Your task to perform on an android device: open app "PUBG MOBILE" (install if not already installed) and enter user name: "phenomenologically@gmail.com" and password: "artillery" Image 0: 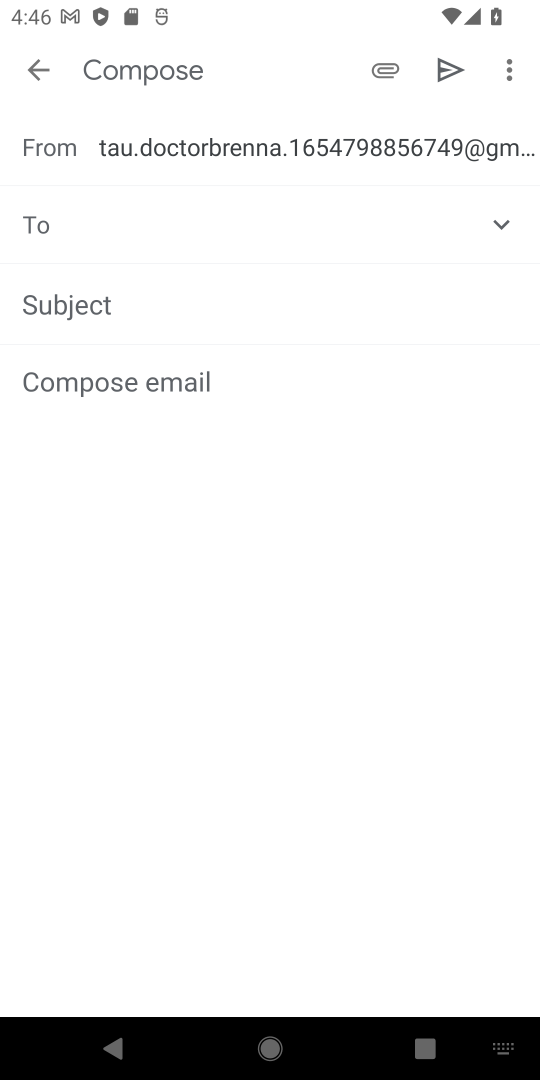
Step 0: press home button
Your task to perform on an android device: open app "PUBG MOBILE" (install if not already installed) and enter user name: "phenomenologically@gmail.com" and password: "artillery" Image 1: 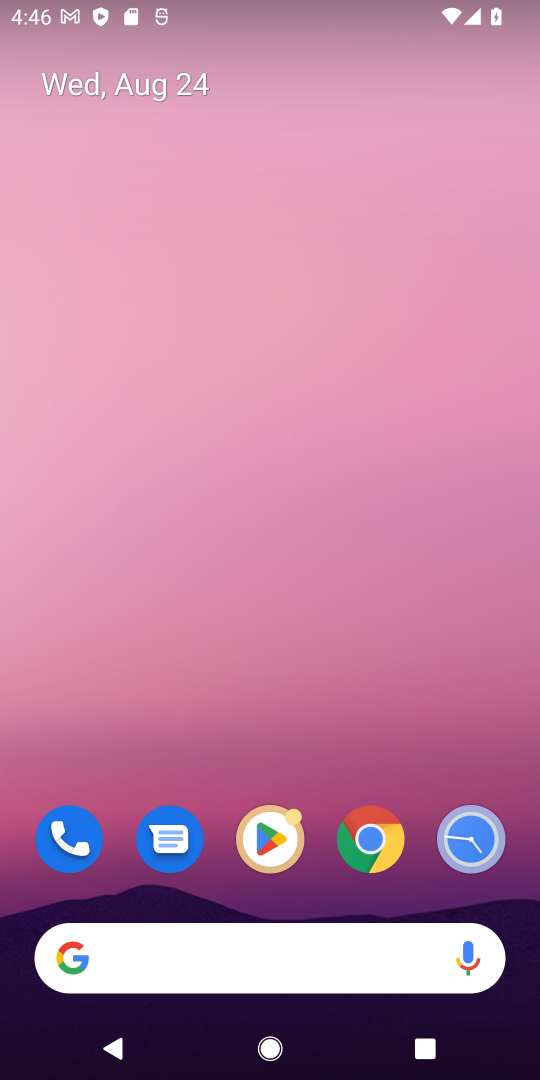
Step 1: click (281, 821)
Your task to perform on an android device: open app "PUBG MOBILE" (install if not already installed) and enter user name: "phenomenologically@gmail.com" and password: "artillery" Image 2: 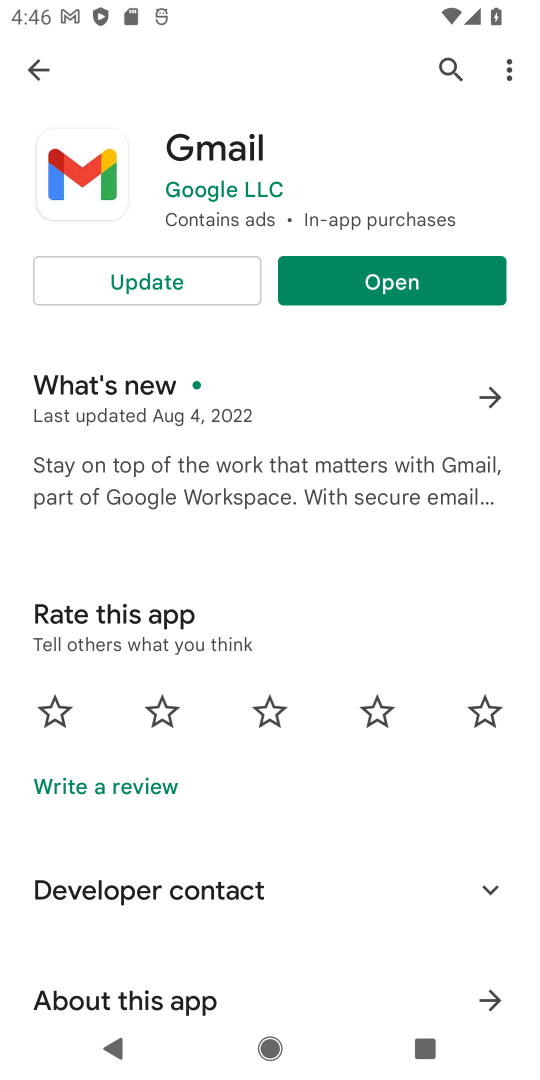
Step 2: click (441, 63)
Your task to perform on an android device: open app "PUBG MOBILE" (install if not already installed) and enter user name: "phenomenologically@gmail.com" and password: "artillery" Image 3: 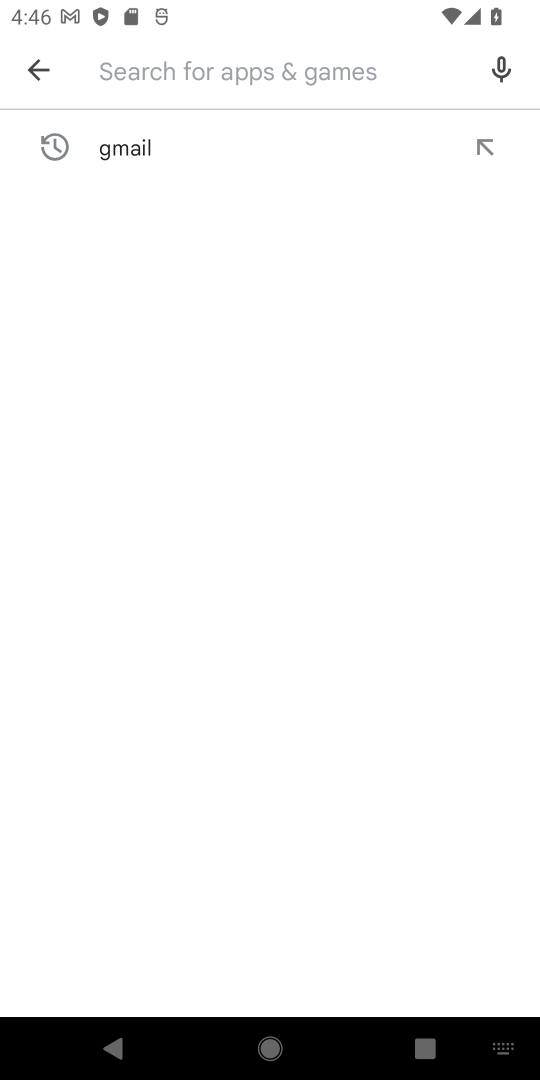
Step 3: type "PUBG MOBILE"
Your task to perform on an android device: open app "PUBG MOBILE" (install if not already installed) and enter user name: "phenomenologically@gmail.com" and password: "artillery" Image 4: 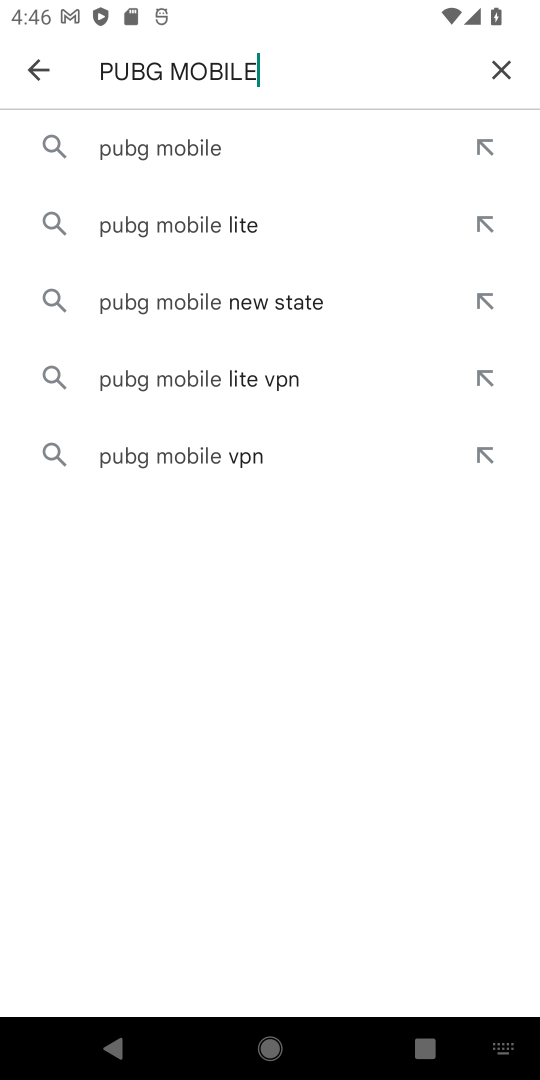
Step 4: click (179, 141)
Your task to perform on an android device: open app "PUBG MOBILE" (install if not already installed) and enter user name: "phenomenologically@gmail.com" and password: "artillery" Image 5: 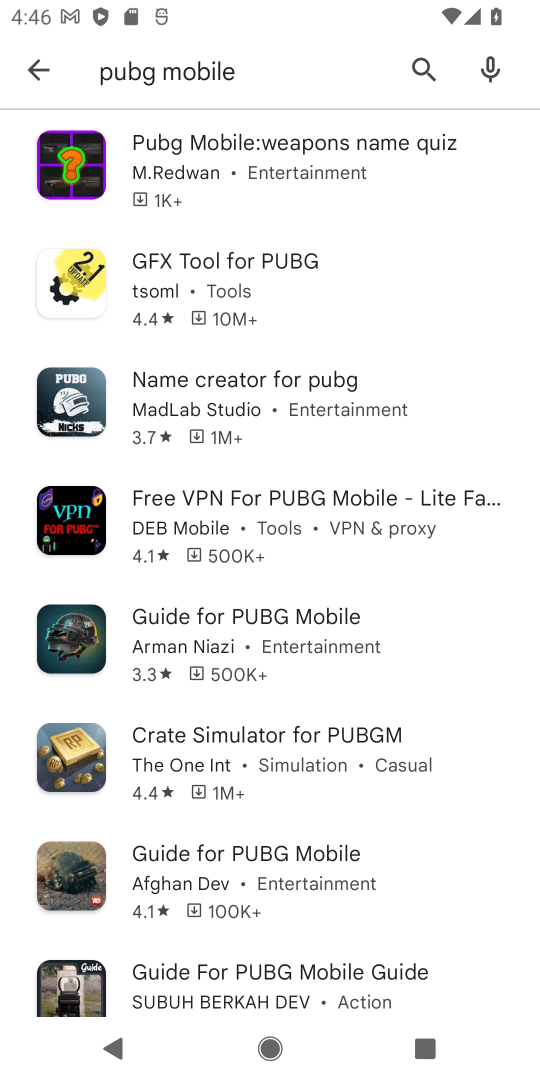
Step 5: click (195, 157)
Your task to perform on an android device: open app "PUBG MOBILE" (install if not already installed) and enter user name: "phenomenologically@gmail.com" and password: "artillery" Image 6: 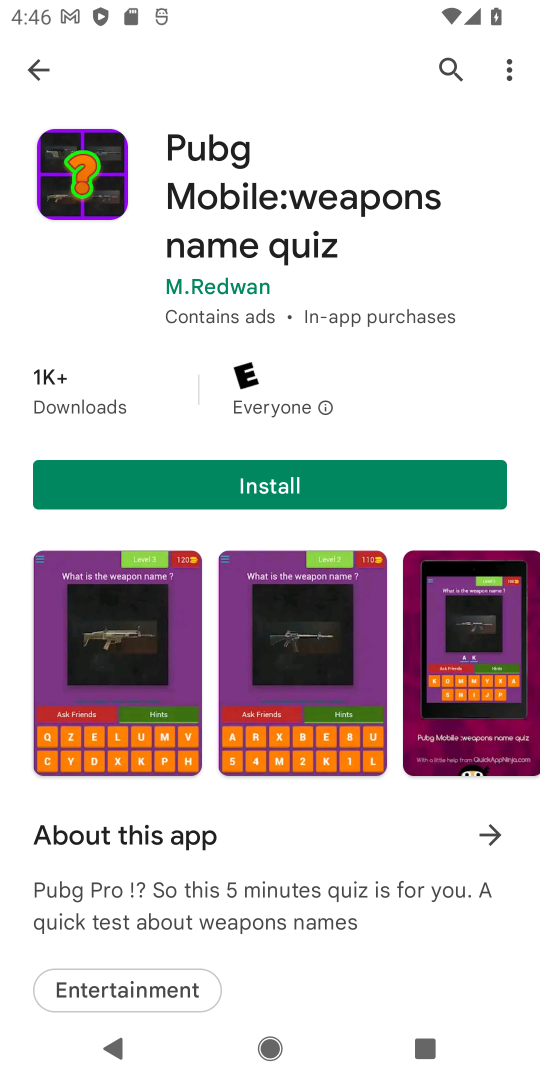
Step 6: click (288, 479)
Your task to perform on an android device: open app "PUBG MOBILE" (install if not already installed) and enter user name: "phenomenologically@gmail.com" and password: "artillery" Image 7: 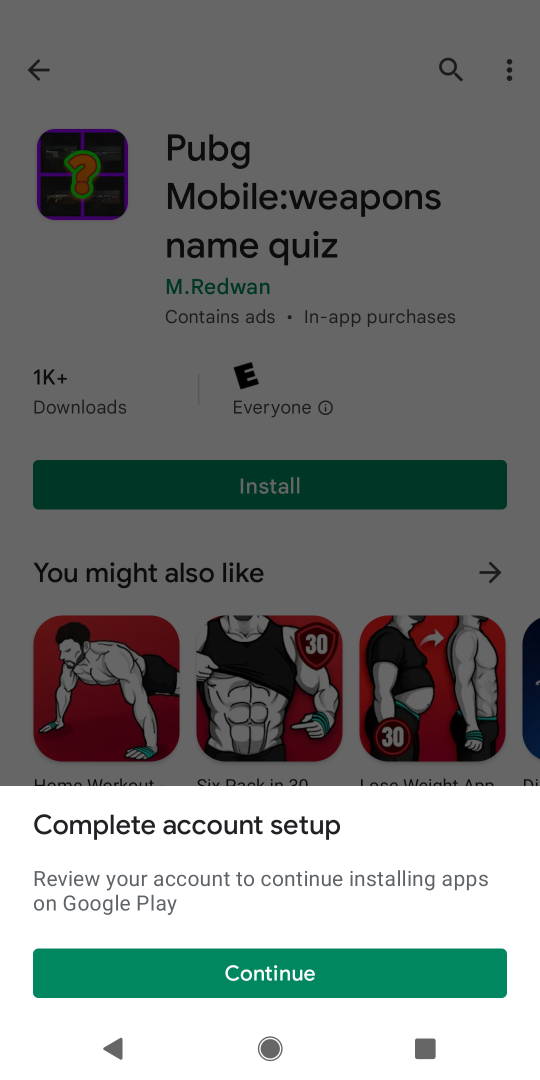
Step 7: click (306, 969)
Your task to perform on an android device: open app "PUBG MOBILE" (install if not already installed) and enter user name: "phenomenologically@gmail.com" and password: "artillery" Image 8: 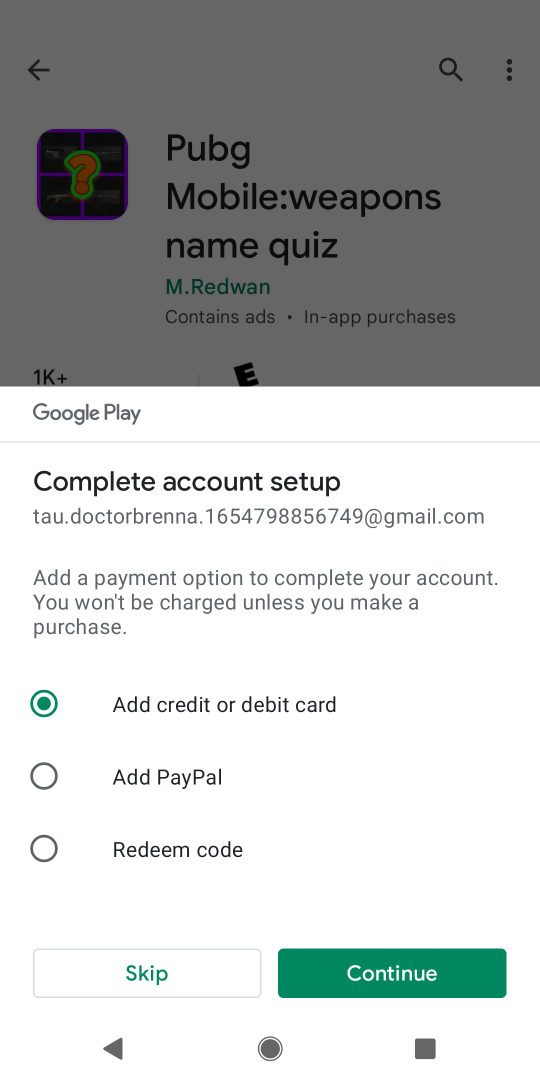
Step 8: click (140, 967)
Your task to perform on an android device: open app "PUBG MOBILE" (install if not already installed) and enter user name: "phenomenologically@gmail.com" and password: "artillery" Image 9: 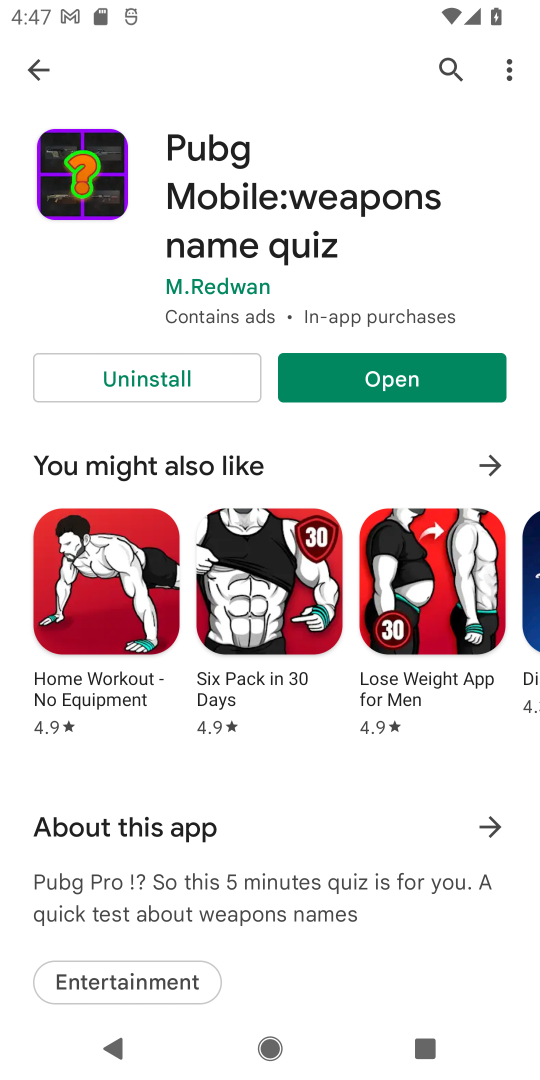
Step 9: click (448, 372)
Your task to perform on an android device: open app "PUBG MOBILE" (install if not already installed) and enter user name: "phenomenologically@gmail.com" and password: "artillery" Image 10: 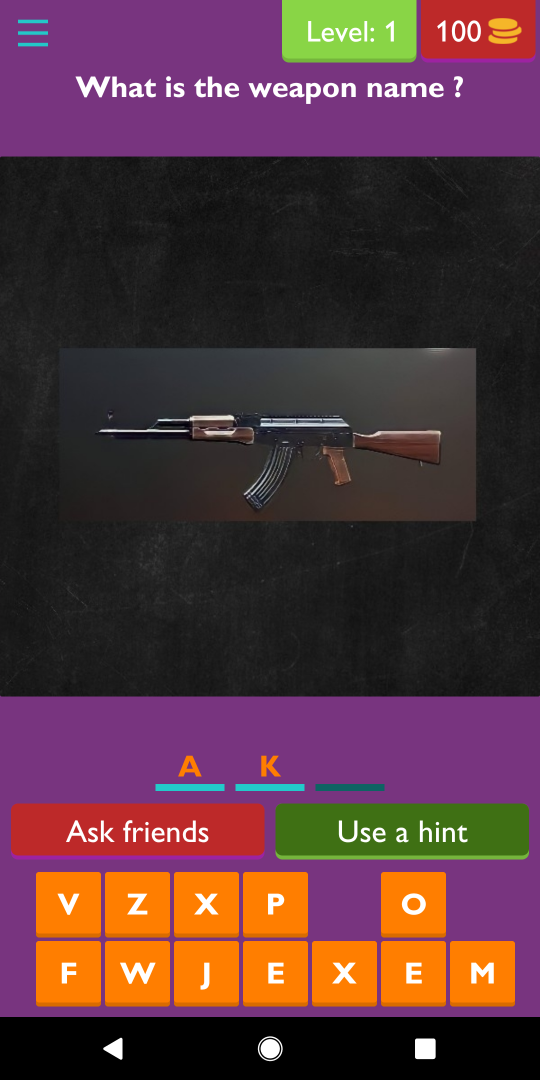
Step 10: task complete